Your task to perform on an android device: Go to Reddit.com Image 0: 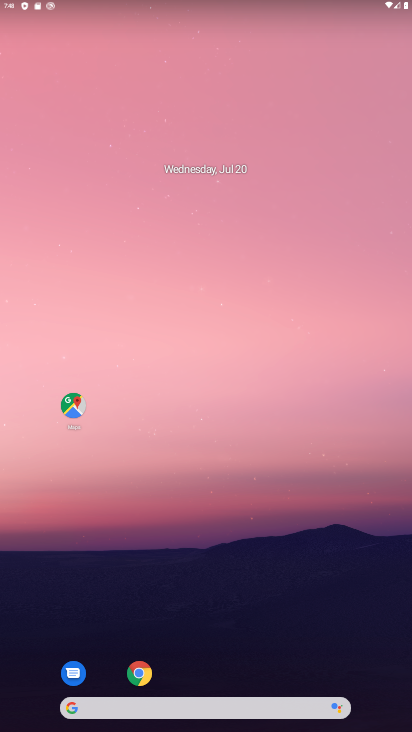
Step 0: click (235, 65)
Your task to perform on an android device: Go to Reddit.com Image 1: 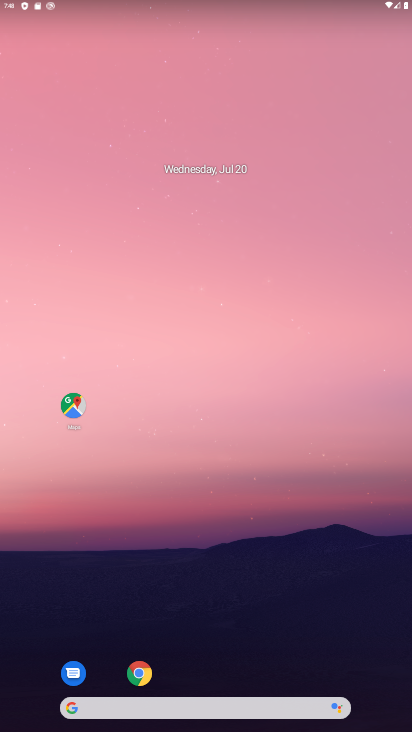
Step 1: drag from (169, 671) to (300, 4)
Your task to perform on an android device: Go to Reddit.com Image 2: 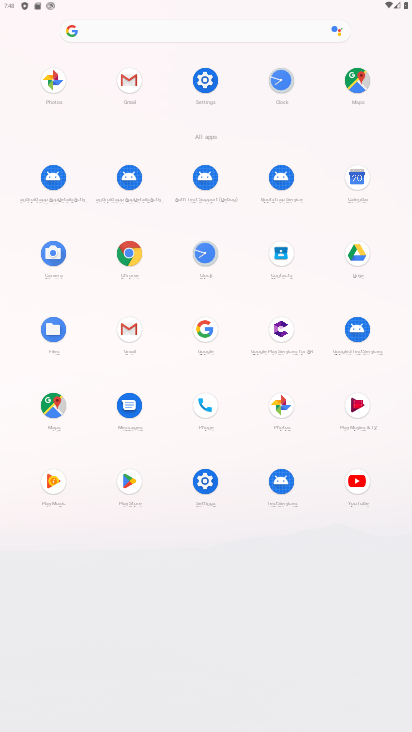
Step 2: click (169, 32)
Your task to perform on an android device: Go to Reddit.com Image 3: 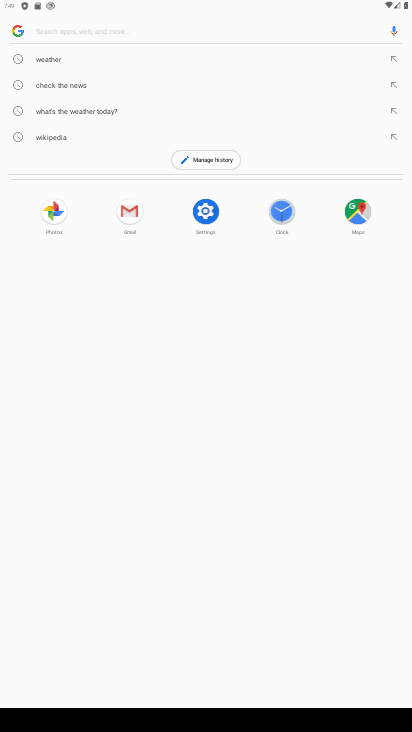
Step 3: type "reddit.com"
Your task to perform on an android device: Go to Reddit.com Image 4: 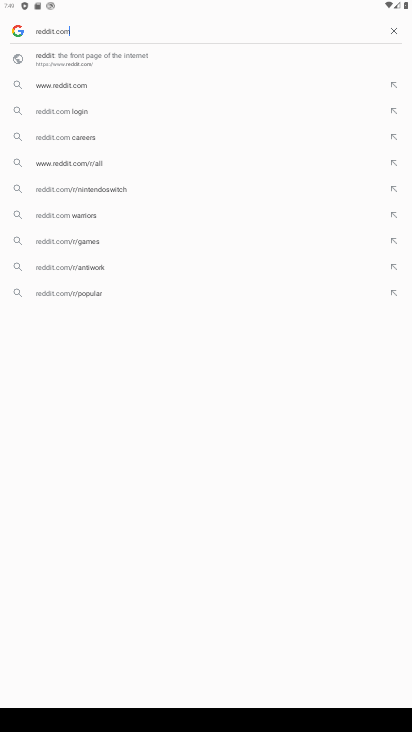
Step 4: click (76, 84)
Your task to perform on an android device: Go to Reddit.com Image 5: 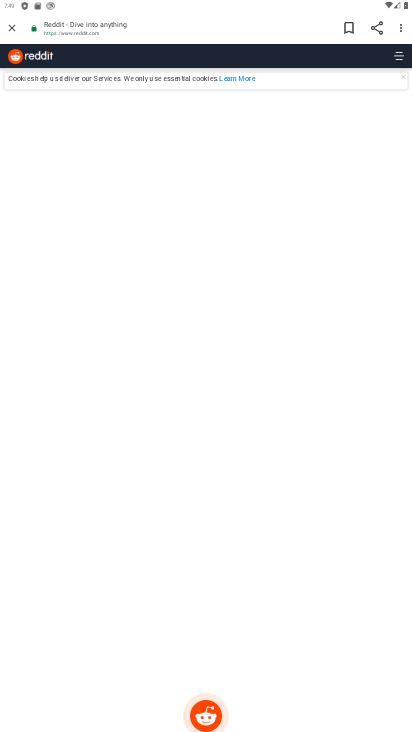
Step 5: task complete